Your task to perform on an android device: install app "Gmail" Image 0: 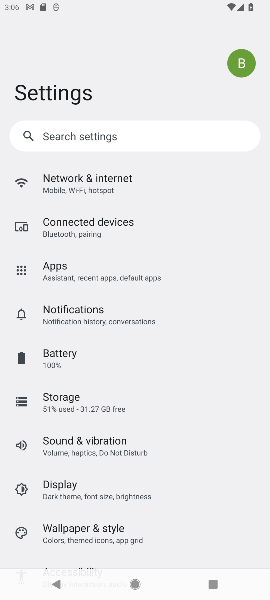
Step 0: press back button
Your task to perform on an android device: install app "Gmail" Image 1: 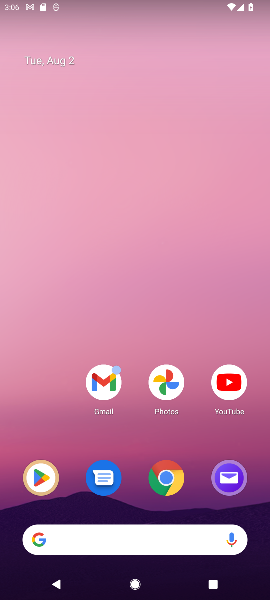
Step 1: drag from (129, 220) to (121, 69)
Your task to perform on an android device: install app "Gmail" Image 2: 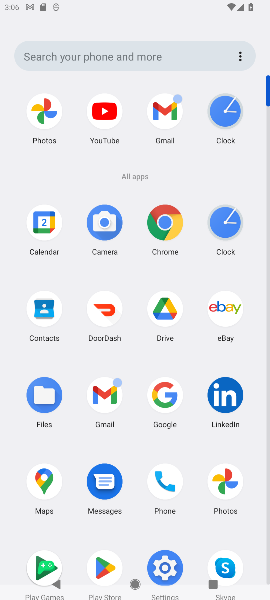
Step 2: drag from (182, 339) to (182, 119)
Your task to perform on an android device: install app "Gmail" Image 3: 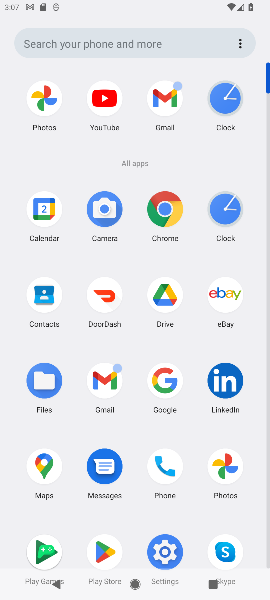
Step 3: click (102, 550)
Your task to perform on an android device: install app "Gmail" Image 4: 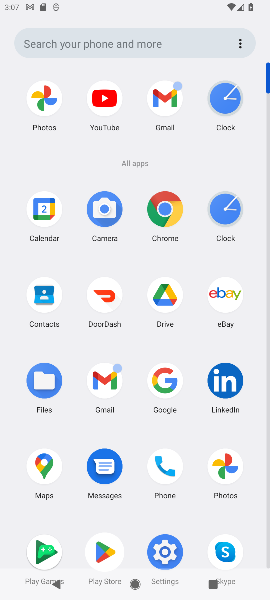
Step 4: click (104, 549)
Your task to perform on an android device: install app "Gmail" Image 5: 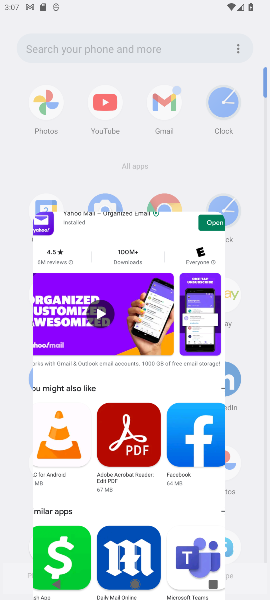
Step 5: click (104, 549)
Your task to perform on an android device: install app "Gmail" Image 6: 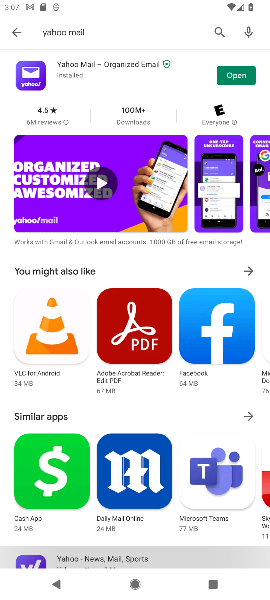
Step 6: click (107, 549)
Your task to perform on an android device: install app "Gmail" Image 7: 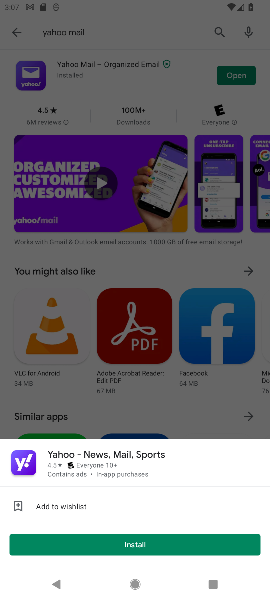
Step 7: click (15, 31)
Your task to perform on an android device: install app "Gmail" Image 8: 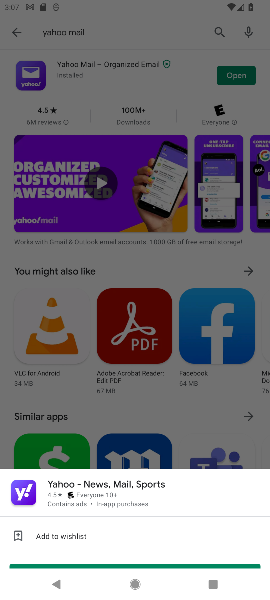
Step 8: click (15, 31)
Your task to perform on an android device: install app "Gmail" Image 9: 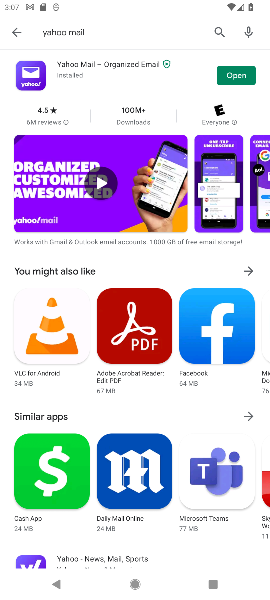
Step 9: click (95, 28)
Your task to perform on an android device: install app "Gmail" Image 10: 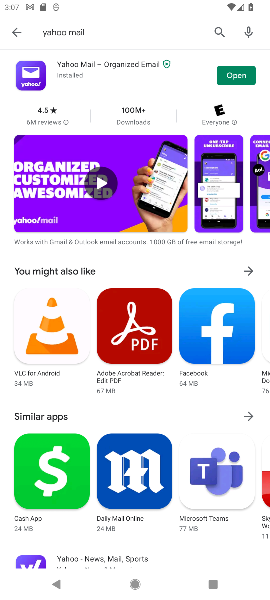
Step 10: click (97, 29)
Your task to perform on an android device: install app "Gmail" Image 11: 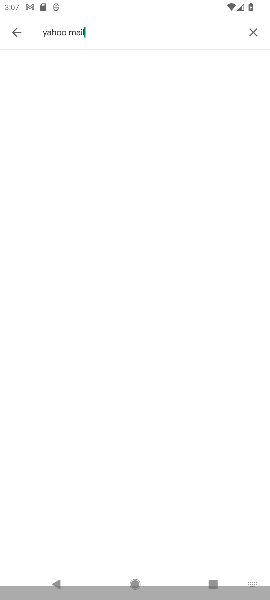
Step 11: click (98, 28)
Your task to perform on an android device: install app "Gmail" Image 12: 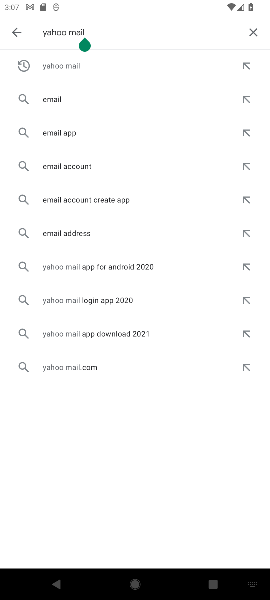
Step 12: click (244, 30)
Your task to perform on an android device: install app "Gmail" Image 13: 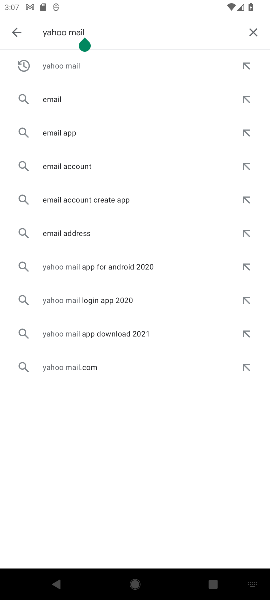
Step 13: click (244, 30)
Your task to perform on an android device: install app "Gmail" Image 14: 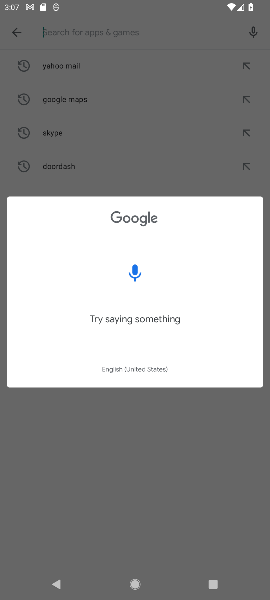
Step 14: type "Gmail"
Your task to perform on an android device: install app "Gmail" Image 15: 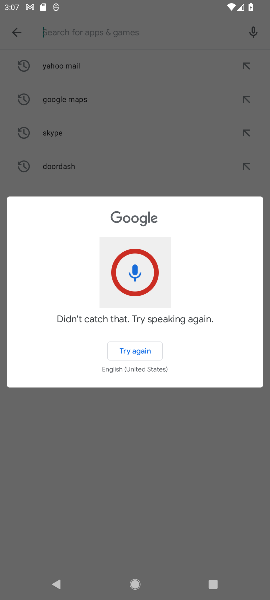
Step 15: click (141, 155)
Your task to perform on an android device: install app "Gmail" Image 16: 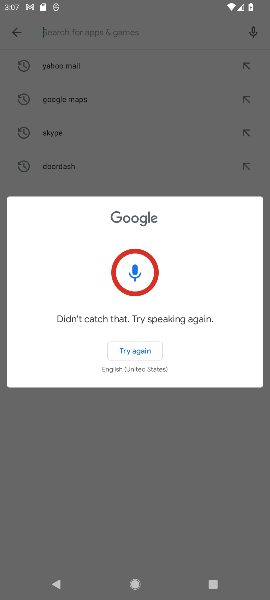
Step 16: click (141, 155)
Your task to perform on an android device: install app "Gmail" Image 17: 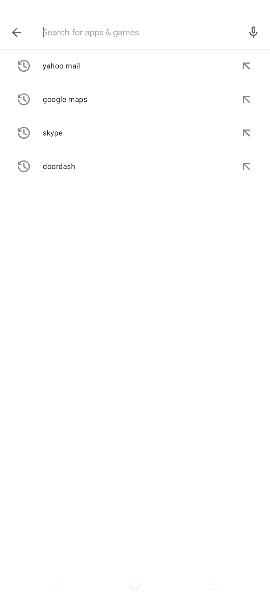
Step 17: click (141, 156)
Your task to perform on an android device: install app "Gmail" Image 18: 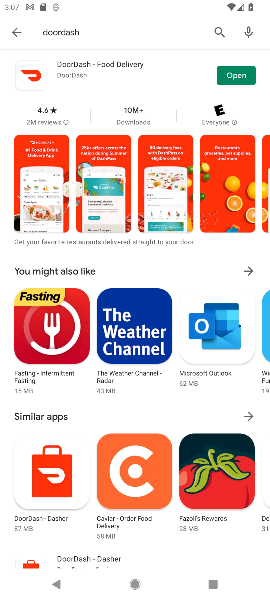
Step 18: click (13, 32)
Your task to perform on an android device: install app "Gmail" Image 19: 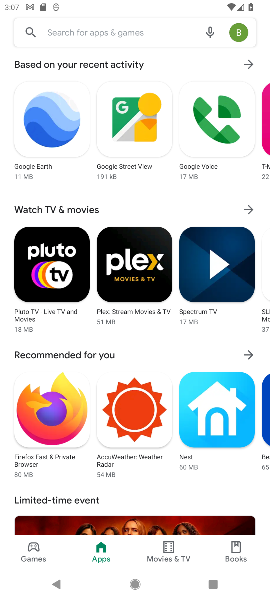
Step 19: type "Gmail"
Your task to perform on an android device: install app "Gmail" Image 20: 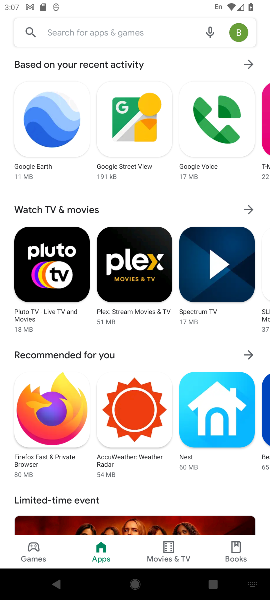
Step 20: click (80, 34)
Your task to perform on an android device: install app "Gmail" Image 21: 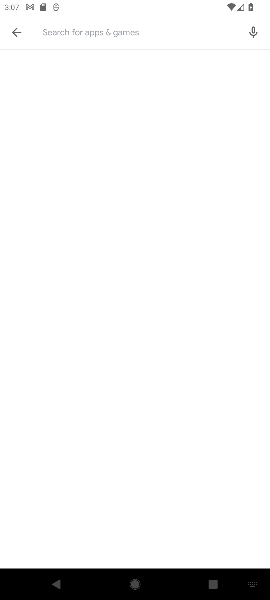
Step 21: click (80, 34)
Your task to perform on an android device: install app "Gmail" Image 22: 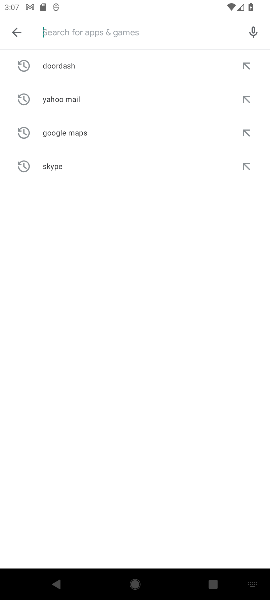
Step 22: click (80, 34)
Your task to perform on an android device: install app "Gmail" Image 23: 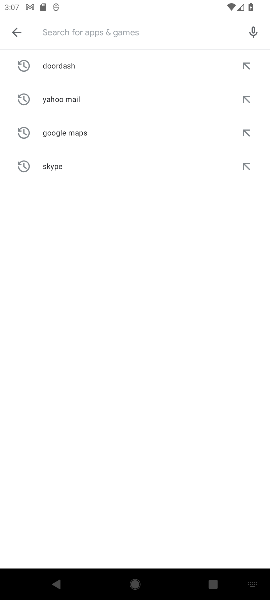
Step 23: click (81, 34)
Your task to perform on an android device: install app "Gmail" Image 24: 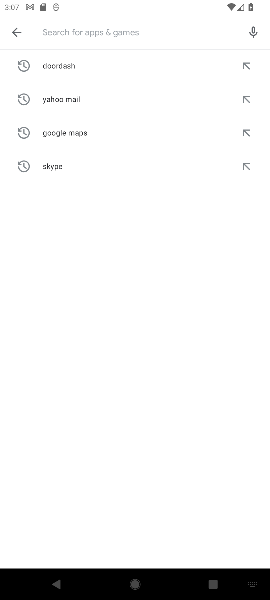
Step 24: click (82, 33)
Your task to perform on an android device: install app "Gmail" Image 25: 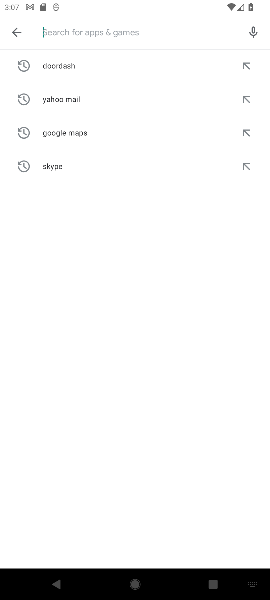
Step 25: type "Gmail"
Your task to perform on an android device: install app "Gmail" Image 26: 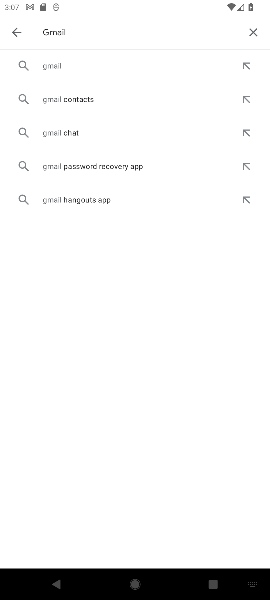
Step 26: click (246, 61)
Your task to perform on an android device: install app "Gmail" Image 27: 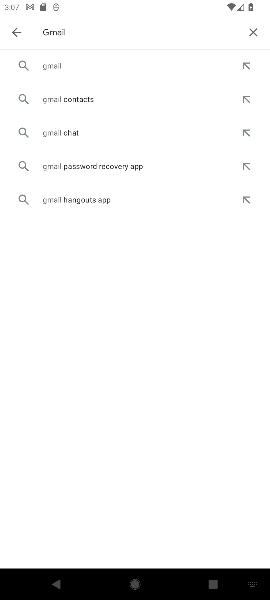
Step 27: click (246, 61)
Your task to perform on an android device: install app "Gmail" Image 28: 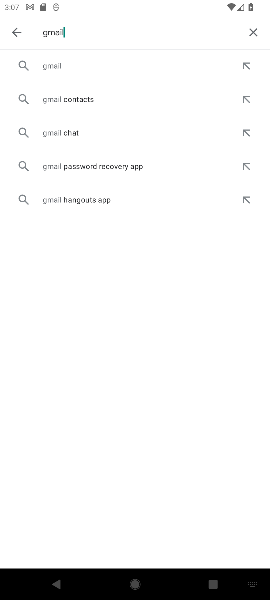
Step 28: click (248, 64)
Your task to perform on an android device: install app "Gmail" Image 29: 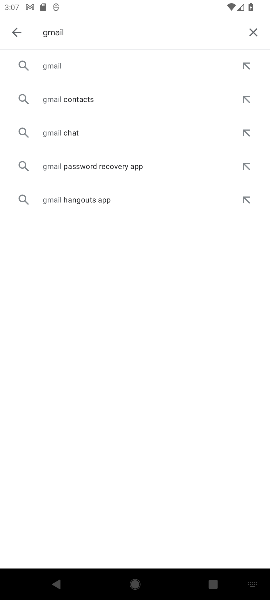
Step 29: click (248, 64)
Your task to perform on an android device: install app "Gmail" Image 30: 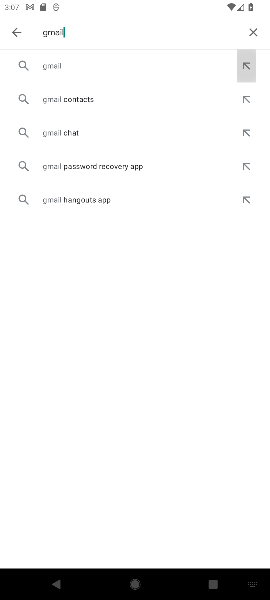
Step 30: click (243, 66)
Your task to perform on an android device: install app "Gmail" Image 31: 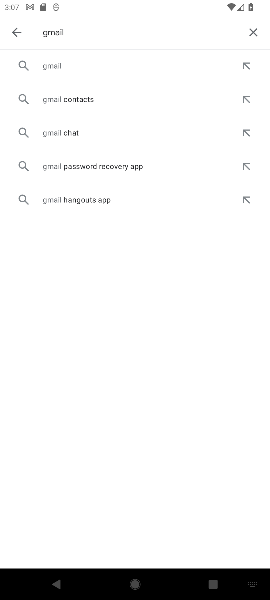
Step 31: click (48, 69)
Your task to perform on an android device: install app "Gmail" Image 32: 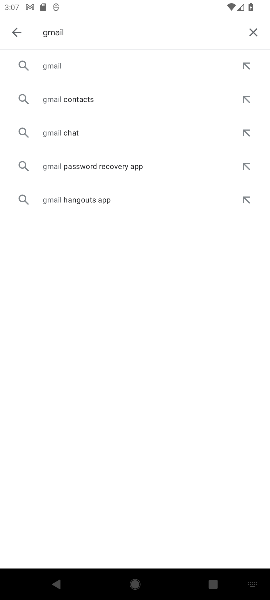
Step 32: click (48, 69)
Your task to perform on an android device: install app "Gmail" Image 33: 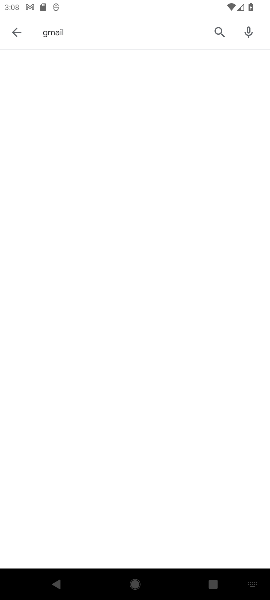
Step 33: click (53, 68)
Your task to perform on an android device: install app "Gmail" Image 34: 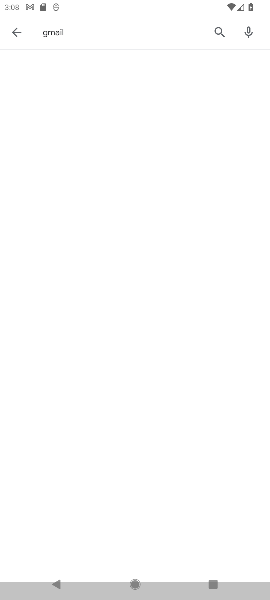
Step 34: click (58, 68)
Your task to perform on an android device: install app "Gmail" Image 35: 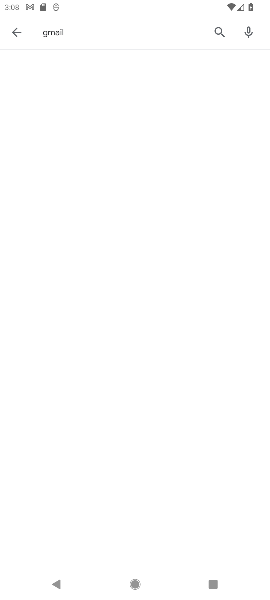
Step 35: click (59, 67)
Your task to perform on an android device: install app "Gmail" Image 36: 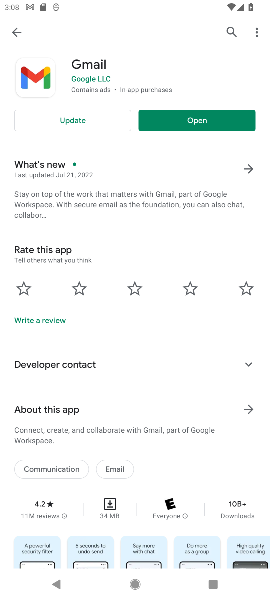
Step 36: click (185, 110)
Your task to perform on an android device: install app "Gmail" Image 37: 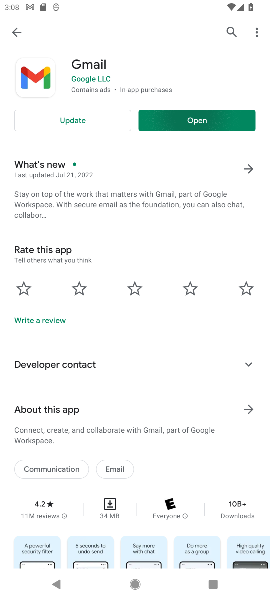
Step 37: click (192, 117)
Your task to perform on an android device: install app "Gmail" Image 38: 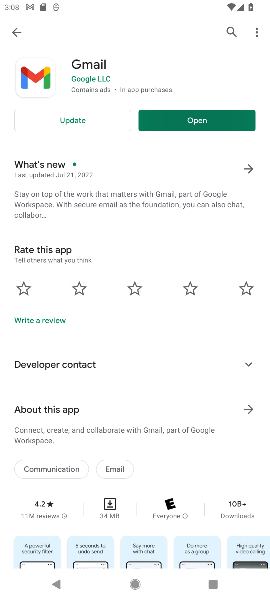
Step 38: click (197, 117)
Your task to perform on an android device: install app "Gmail" Image 39: 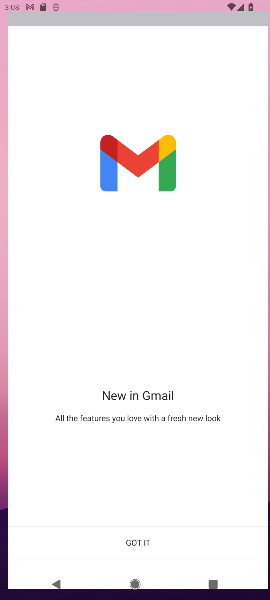
Step 39: click (200, 121)
Your task to perform on an android device: install app "Gmail" Image 40: 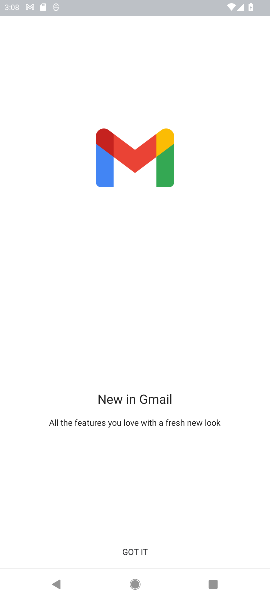
Step 40: click (127, 541)
Your task to perform on an android device: install app "Gmail" Image 41: 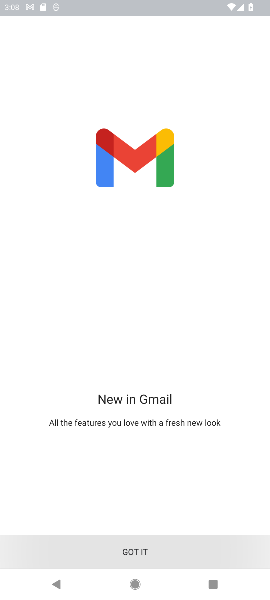
Step 41: click (126, 542)
Your task to perform on an android device: install app "Gmail" Image 42: 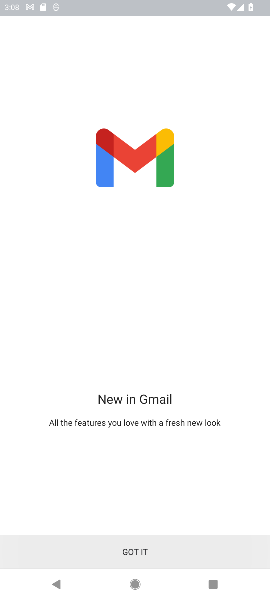
Step 42: click (126, 542)
Your task to perform on an android device: install app "Gmail" Image 43: 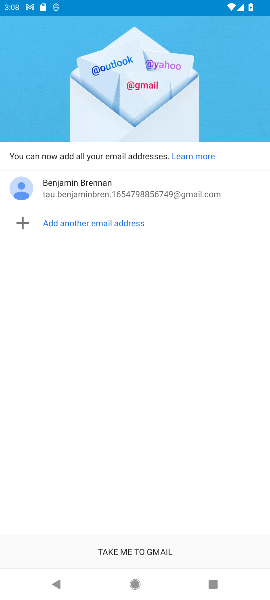
Step 43: task complete